Your task to perform on an android device: show emergency info Image 0: 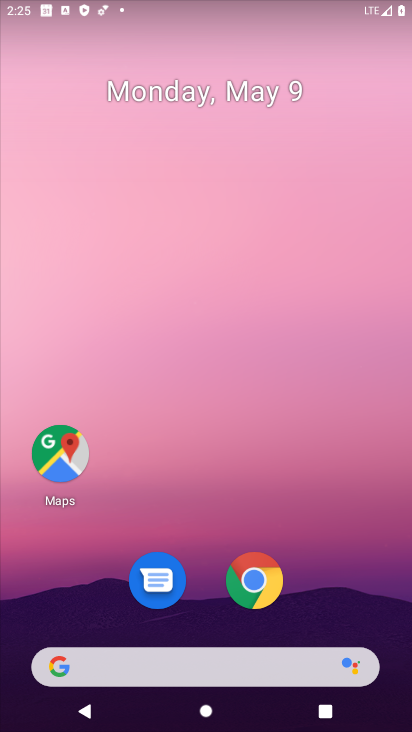
Step 0: drag from (300, 407) to (267, 22)
Your task to perform on an android device: show emergency info Image 1: 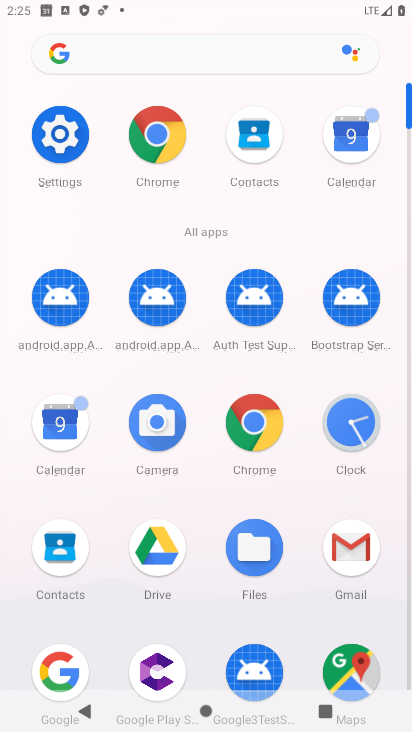
Step 1: click (50, 134)
Your task to perform on an android device: show emergency info Image 2: 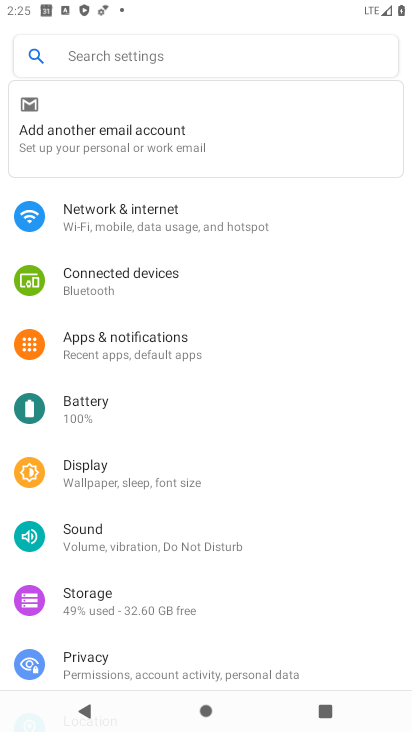
Step 2: drag from (259, 514) to (253, 176)
Your task to perform on an android device: show emergency info Image 3: 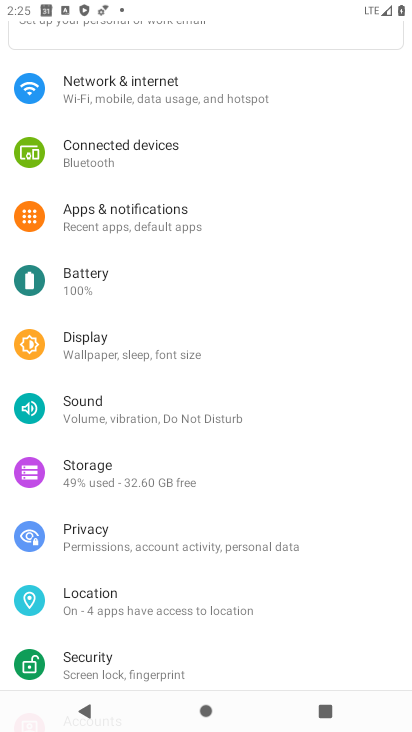
Step 3: drag from (188, 629) to (134, 206)
Your task to perform on an android device: show emergency info Image 4: 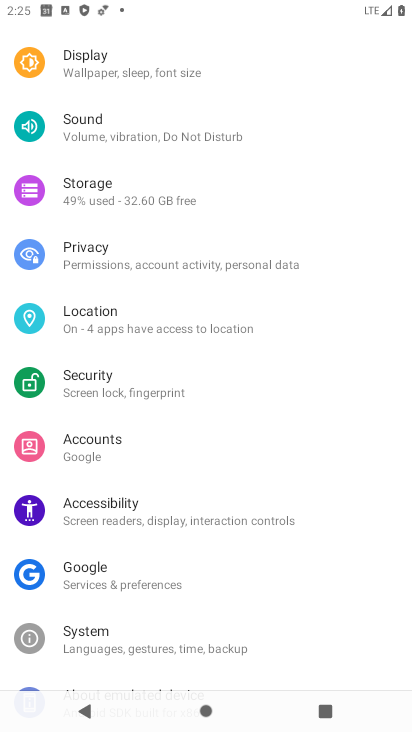
Step 4: drag from (171, 574) to (230, 119)
Your task to perform on an android device: show emergency info Image 5: 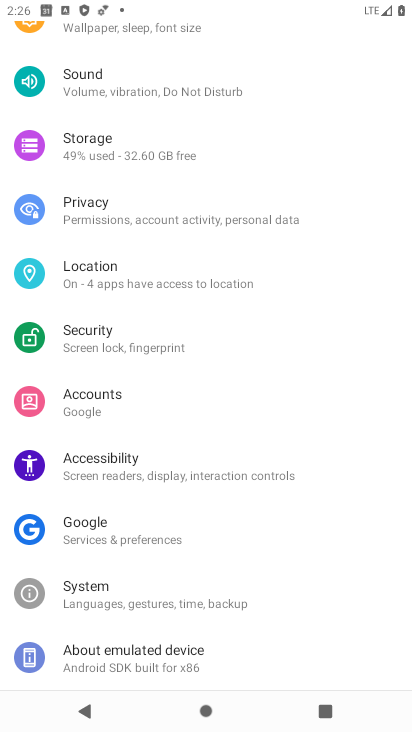
Step 5: click (127, 661)
Your task to perform on an android device: show emergency info Image 6: 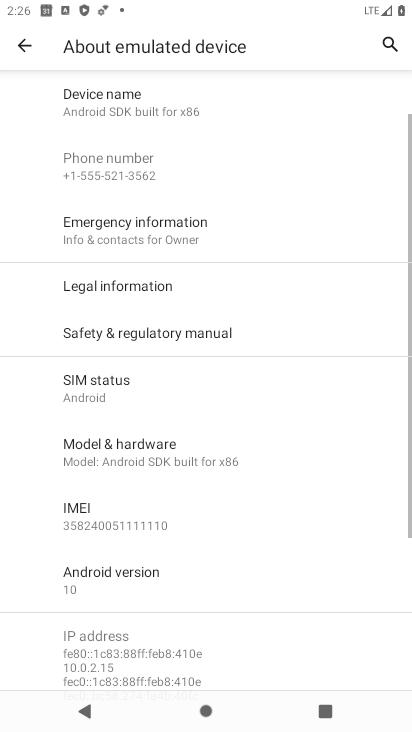
Step 6: drag from (228, 567) to (269, 198)
Your task to perform on an android device: show emergency info Image 7: 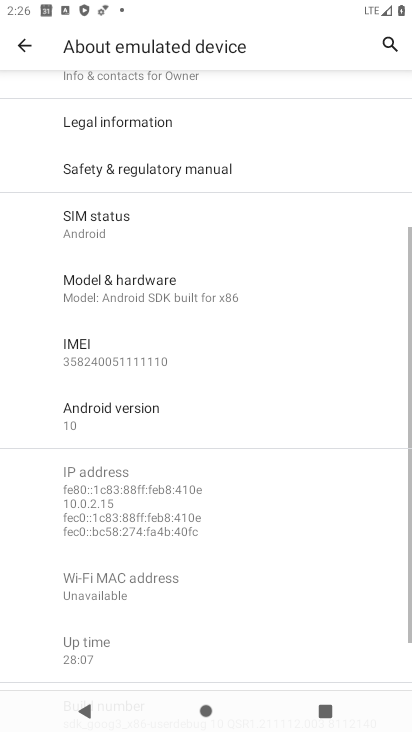
Step 7: drag from (229, 541) to (268, 175)
Your task to perform on an android device: show emergency info Image 8: 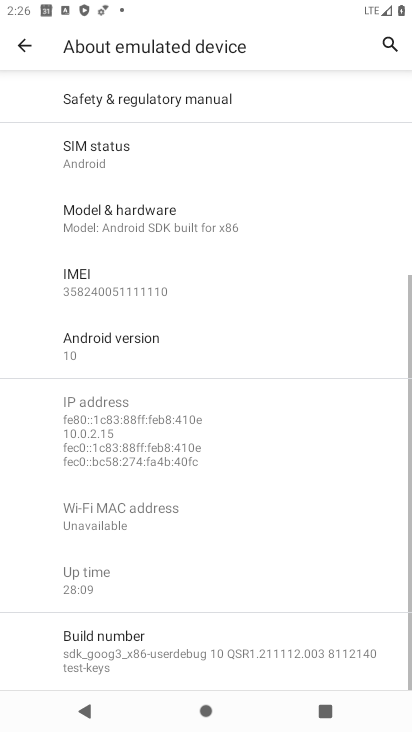
Step 8: drag from (281, 160) to (251, 731)
Your task to perform on an android device: show emergency info Image 9: 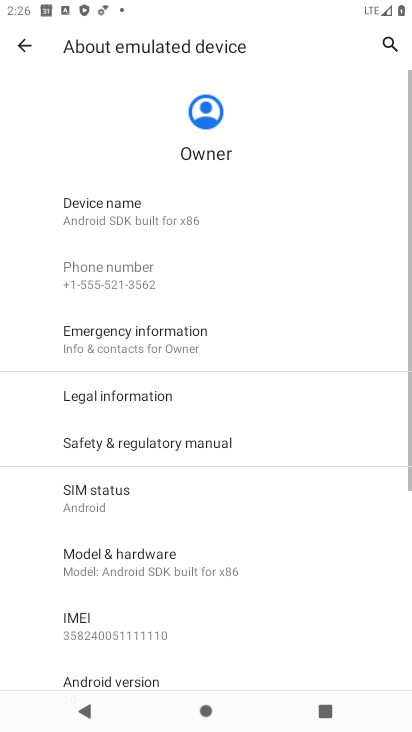
Step 9: click (159, 348)
Your task to perform on an android device: show emergency info Image 10: 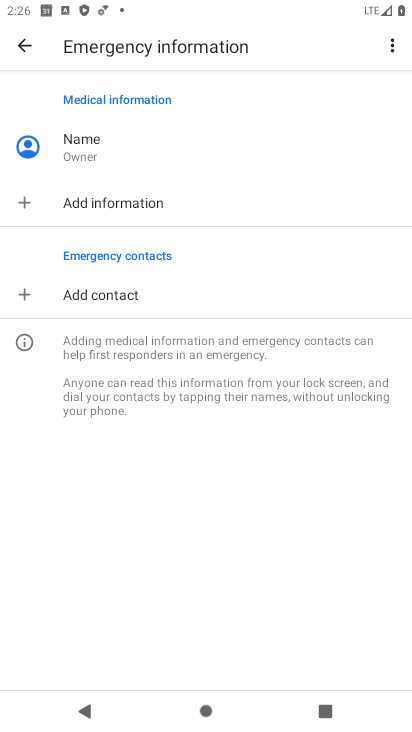
Step 10: task complete